Your task to perform on an android device: Open wifi settings Image 0: 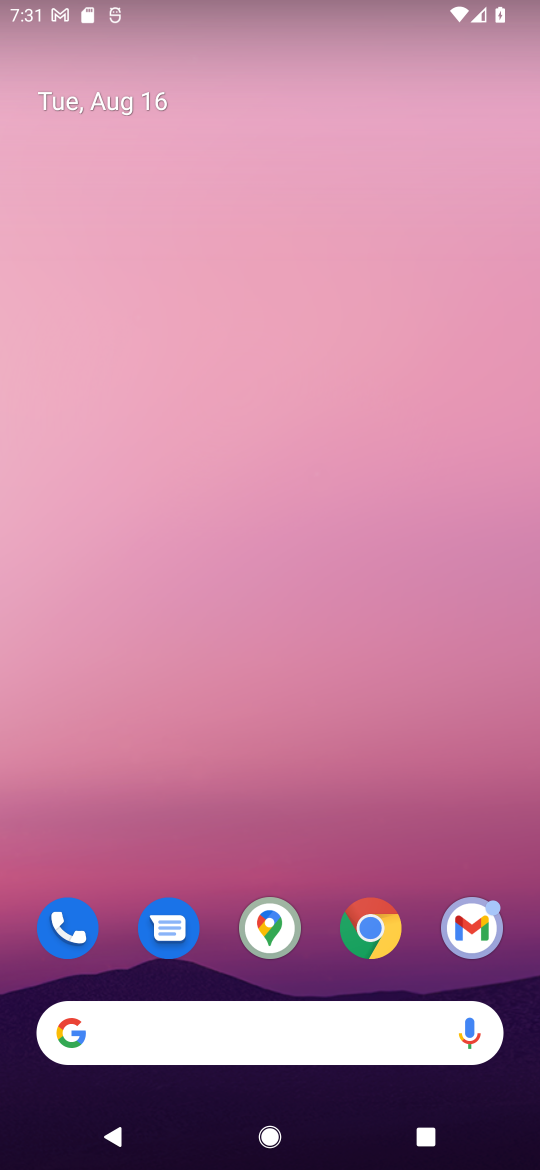
Step 0: drag from (271, 972) to (0, 198)
Your task to perform on an android device: Open wifi settings Image 1: 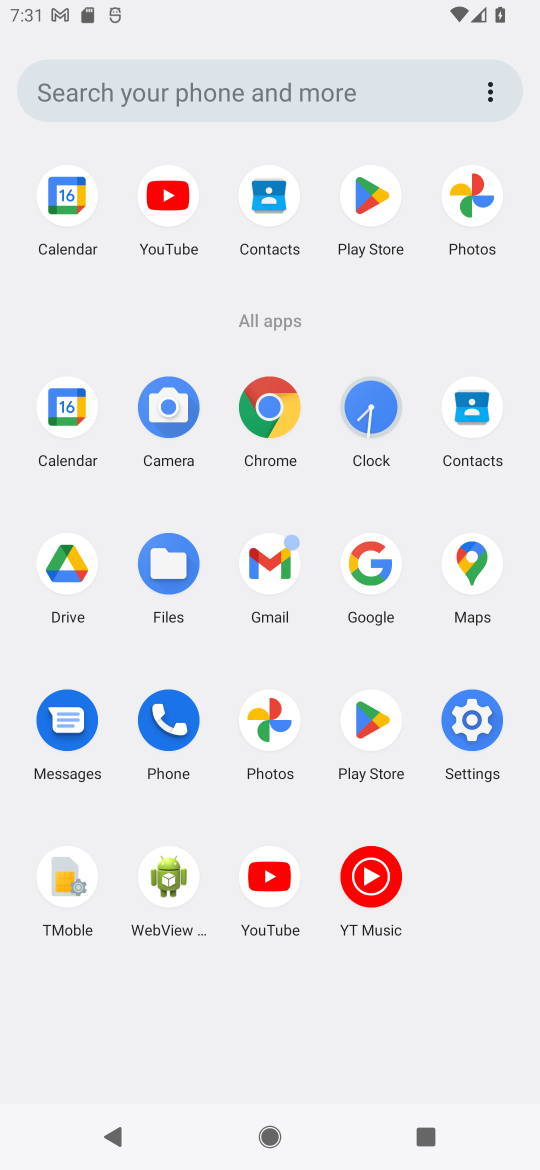
Step 1: click (486, 708)
Your task to perform on an android device: Open wifi settings Image 2: 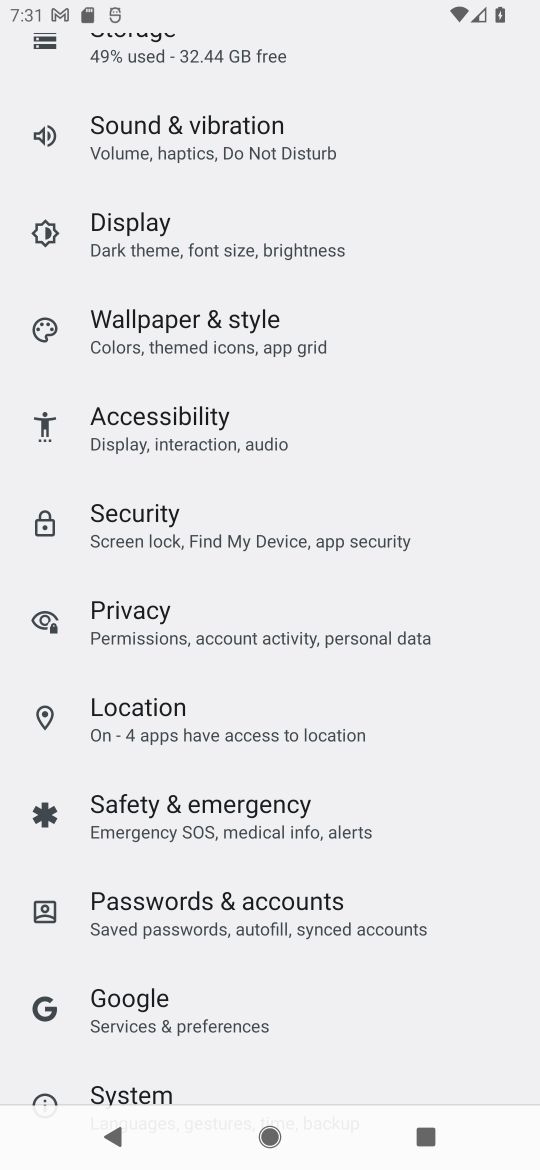
Step 2: drag from (199, 133) to (127, 848)
Your task to perform on an android device: Open wifi settings Image 3: 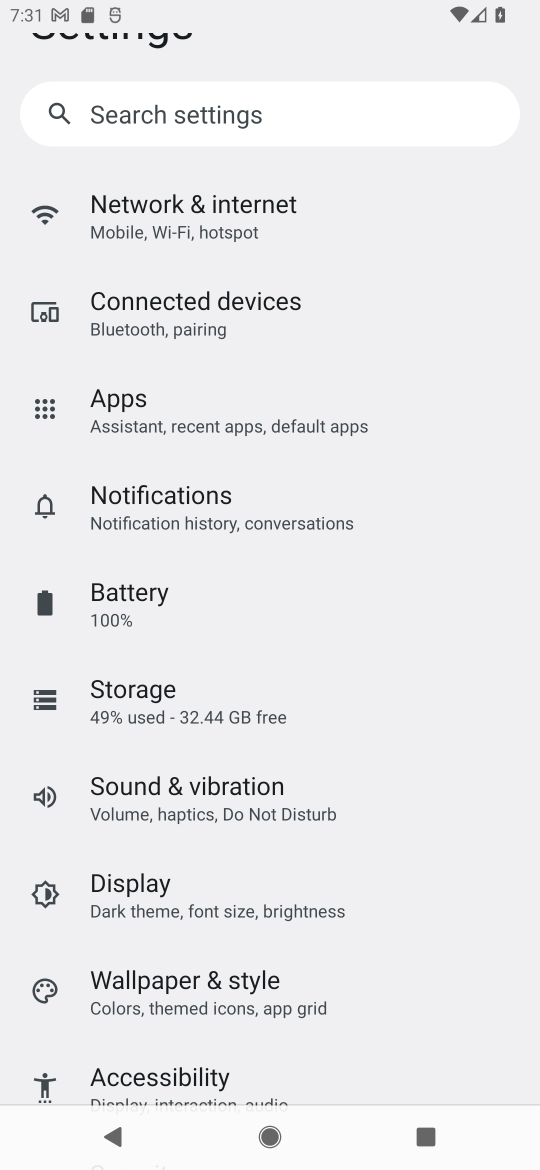
Step 3: click (203, 237)
Your task to perform on an android device: Open wifi settings Image 4: 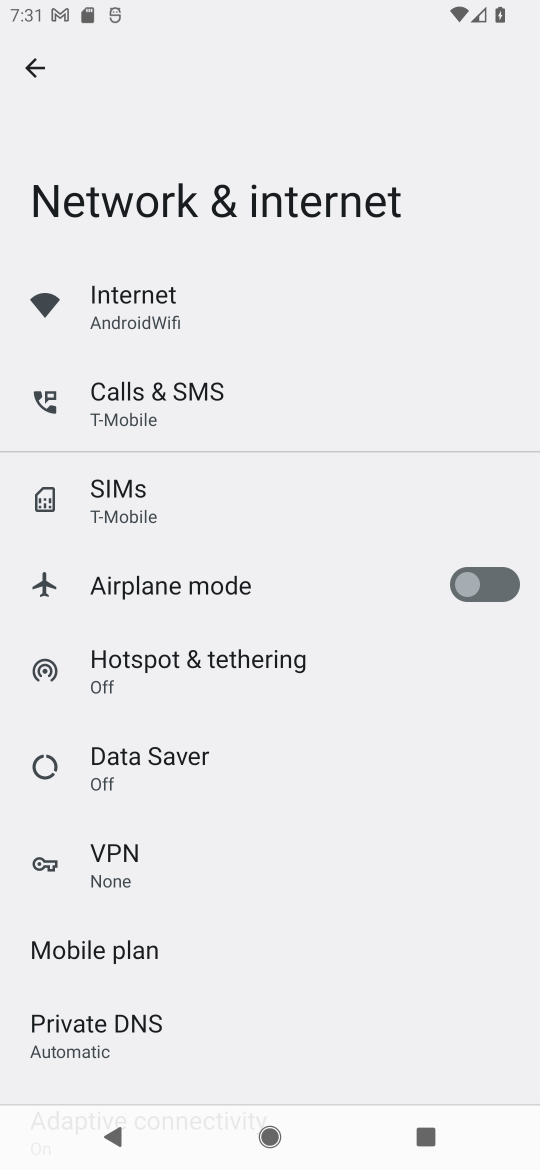
Step 4: click (140, 319)
Your task to perform on an android device: Open wifi settings Image 5: 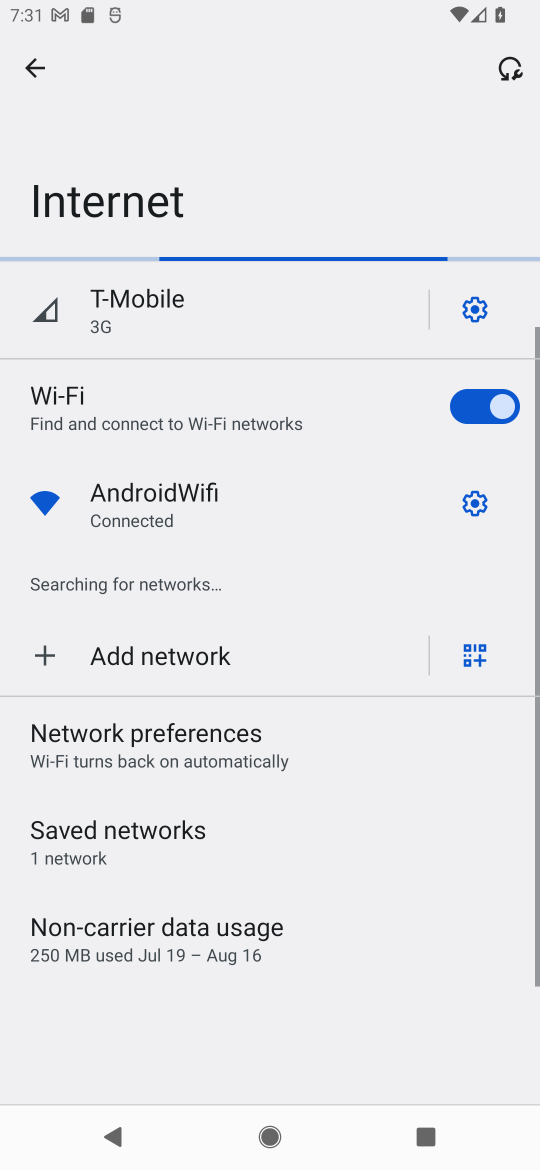
Step 5: task complete